Your task to perform on an android device: check the backup settings in the google photos Image 0: 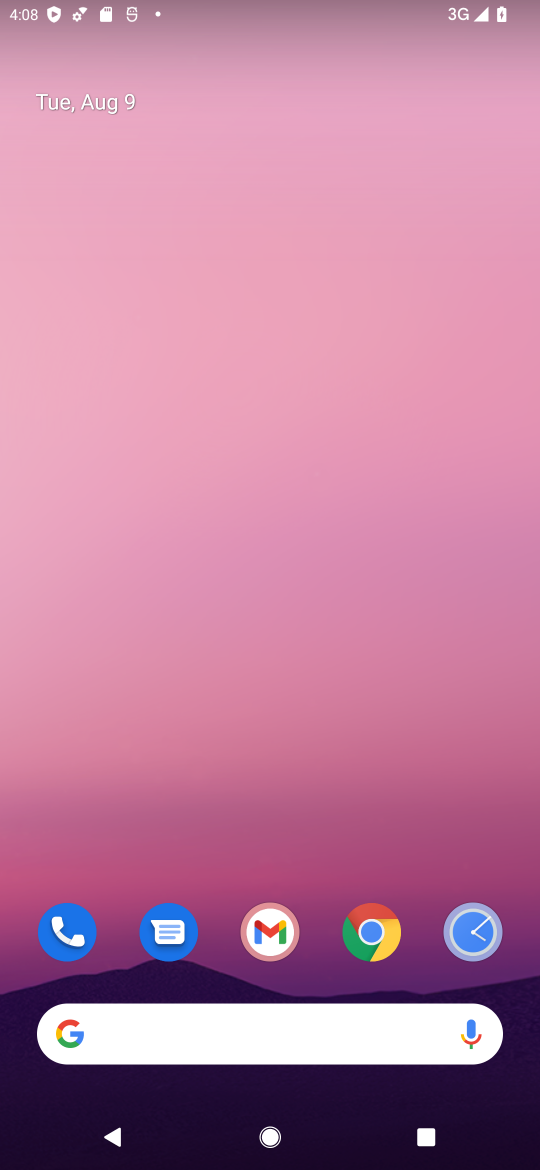
Step 0: drag from (386, 1030) to (395, 20)
Your task to perform on an android device: check the backup settings in the google photos Image 1: 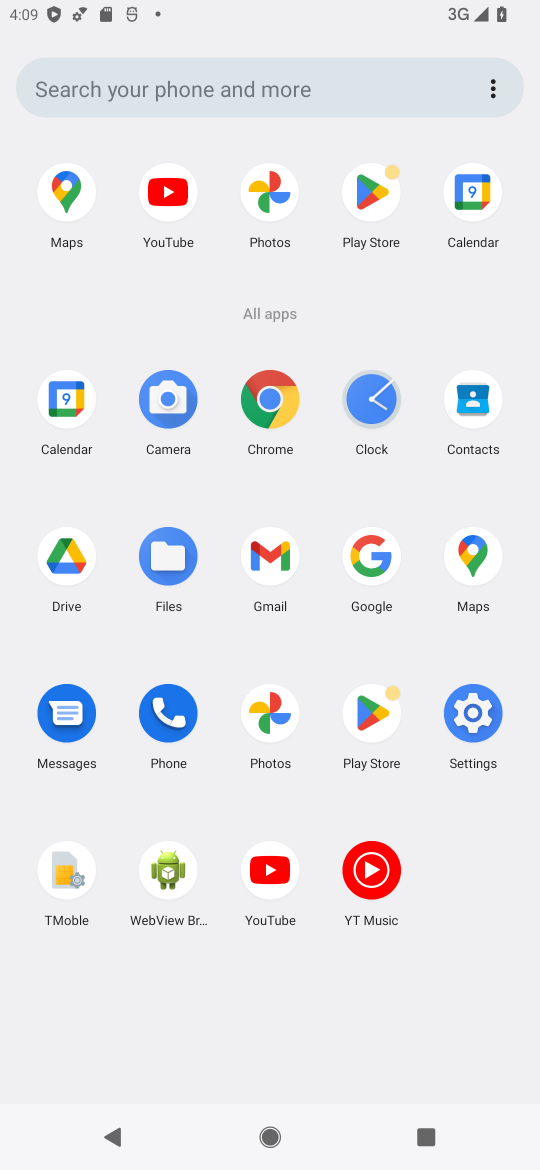
Step 1: click (267, 703)
Your task to perform on an android device: check the backup settings in the google photos Image 2: 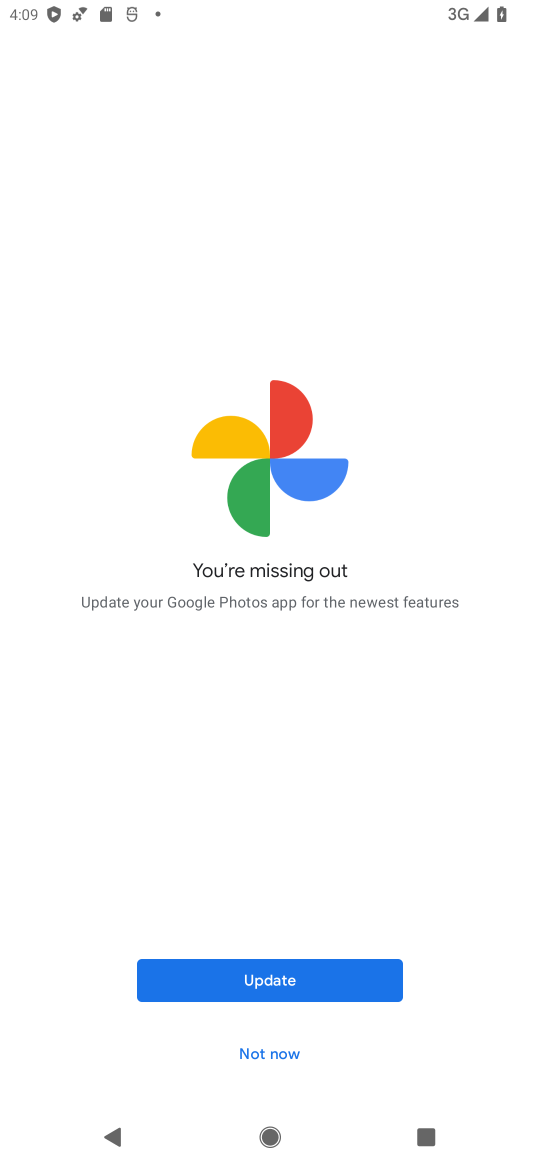
Step 2: click (290, 972)
Your task to perform on an android device: check the backup settings in the google photos Image 3: 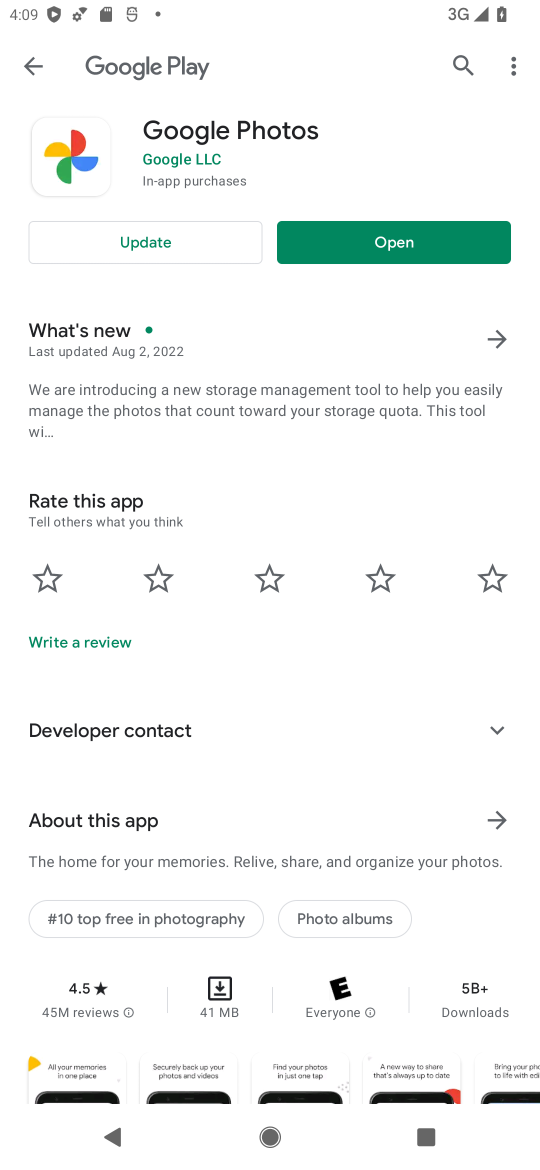
Step 3: click (206, 247)
Your task to perform on an android device: check the backup settings in the google photos Image 4: 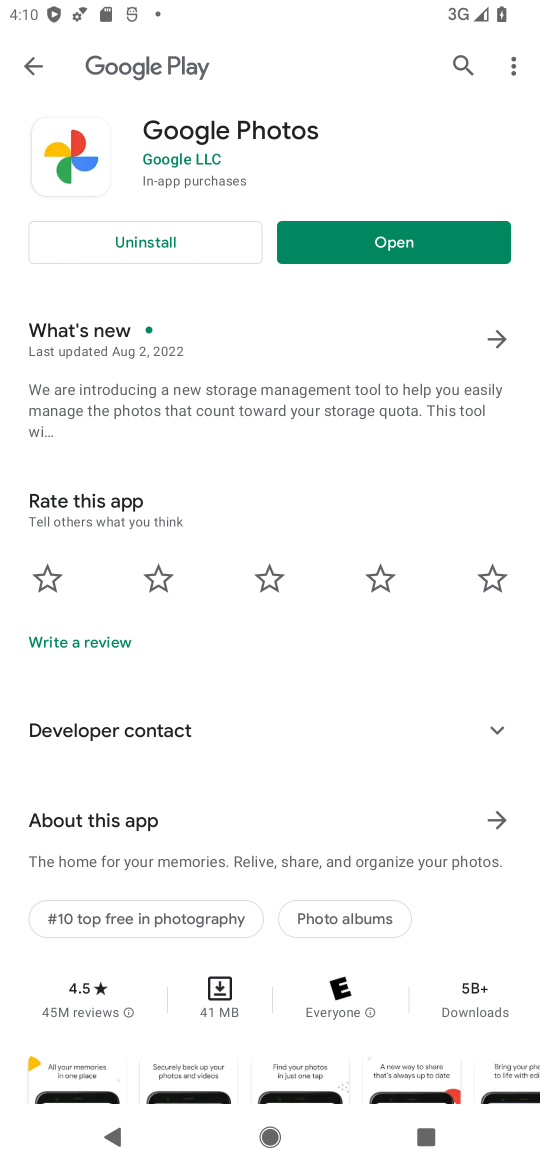
Step 4: click (391, 246)
Your task to perform on an android device: check the backup settings in the google photos Image 5: 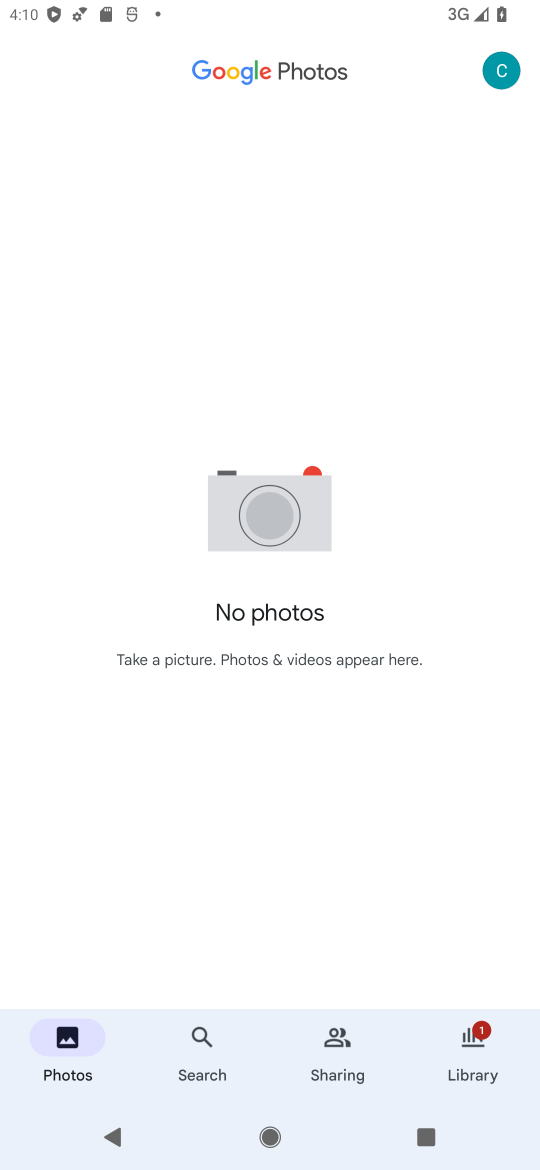
Step 5: click (502, 69)
Your task to perform on an android device: check the backup settings in the google photos Image 6: 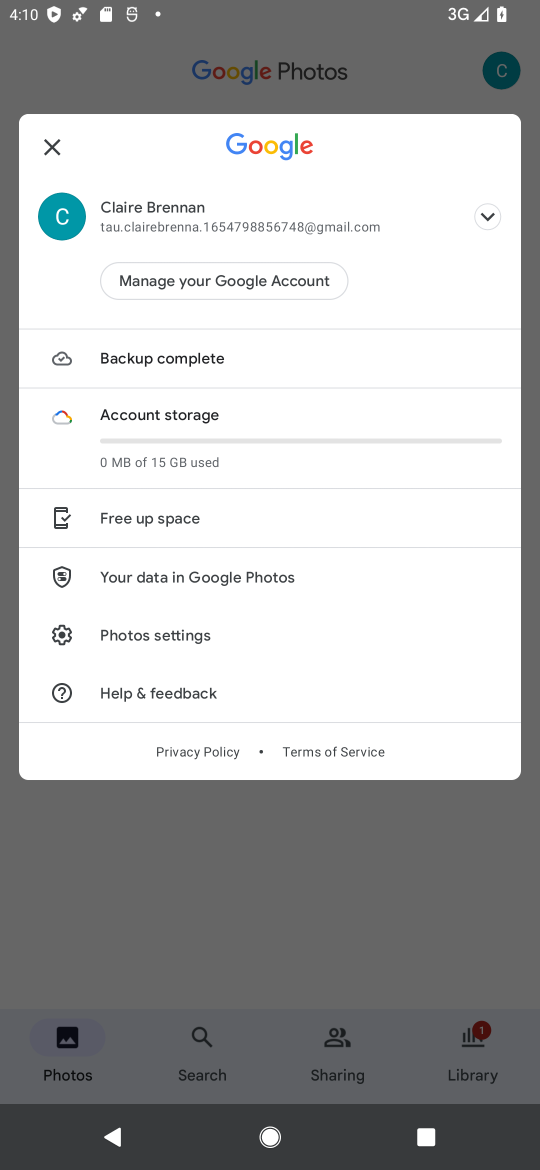
Step 6: click (168, 638)
Your task to perform on an android device: check the backup settings in the google photos Image 7: 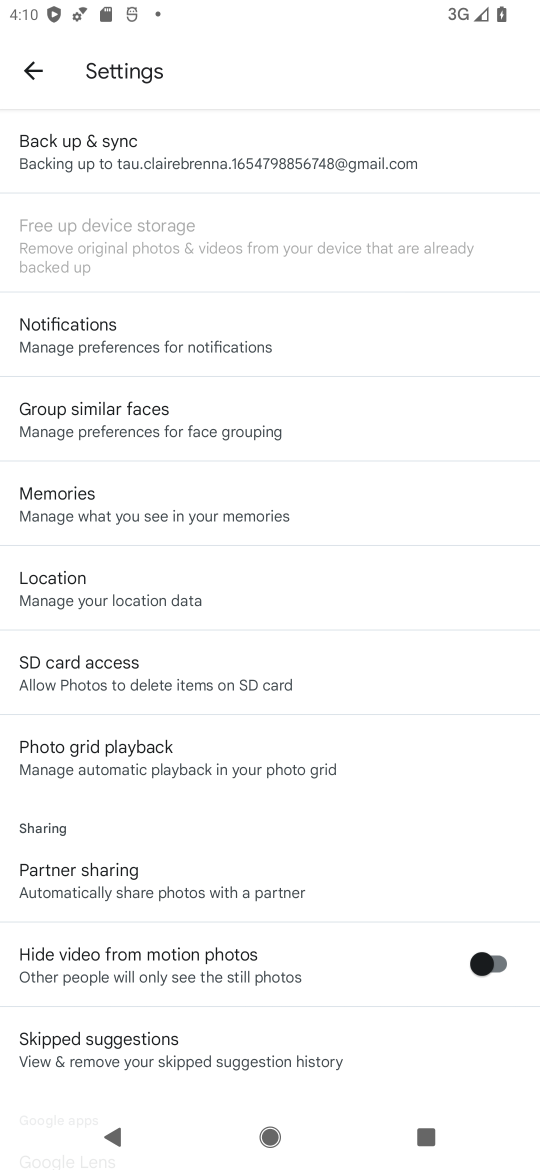
Step 7: click (217, 164)
Your task to perform on an android device: check the backup settings in the google photos Image 8: 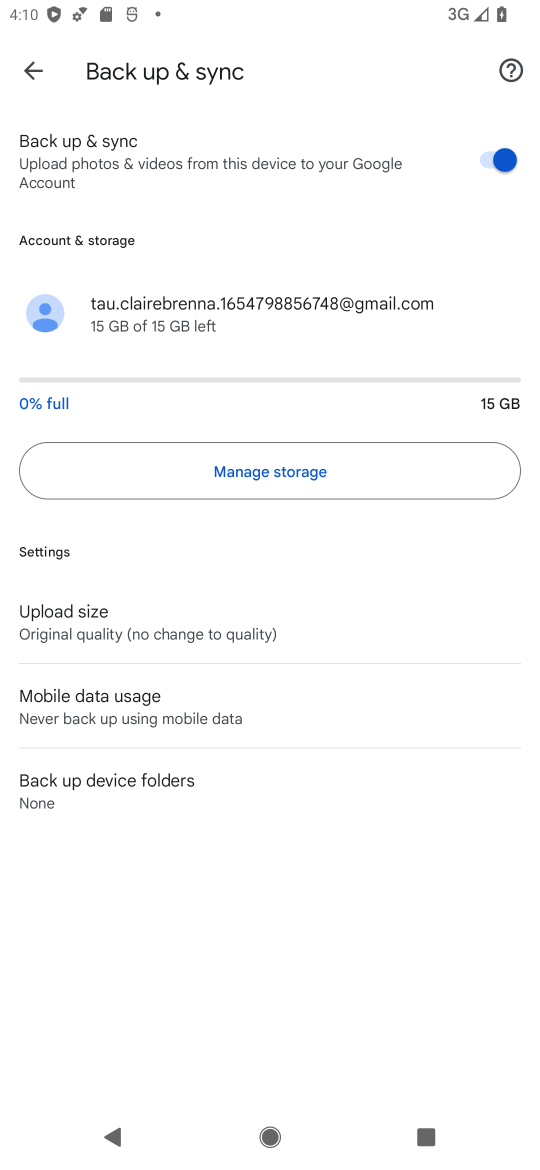
Step 8: task complete